Your task to perform on an android device: turn off improve location accuracy Image 0: 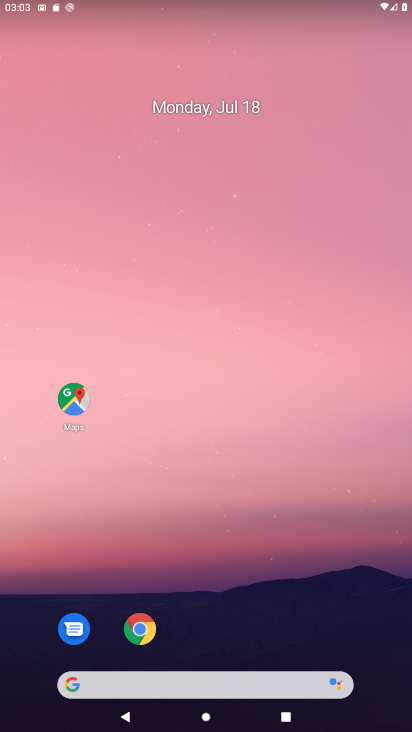
Step 0: drag from (360, 604) to (354, 121)
Your task to perform on an android device: turn off improve location accuracy Image 1: 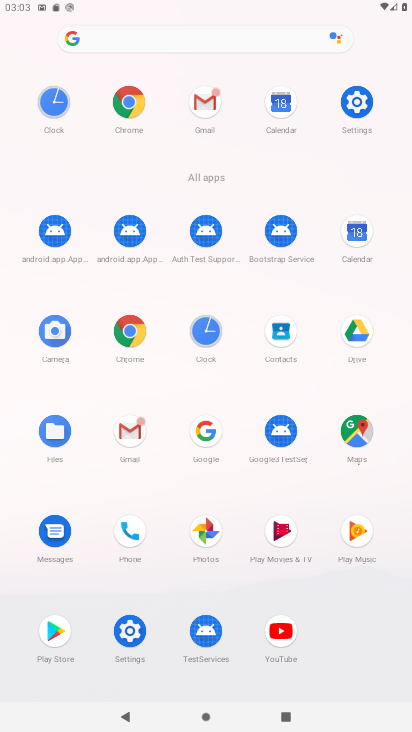
Step 1: click (357, 105)
Your task to perform on an android device: turn off improve location accuracy Image 2: 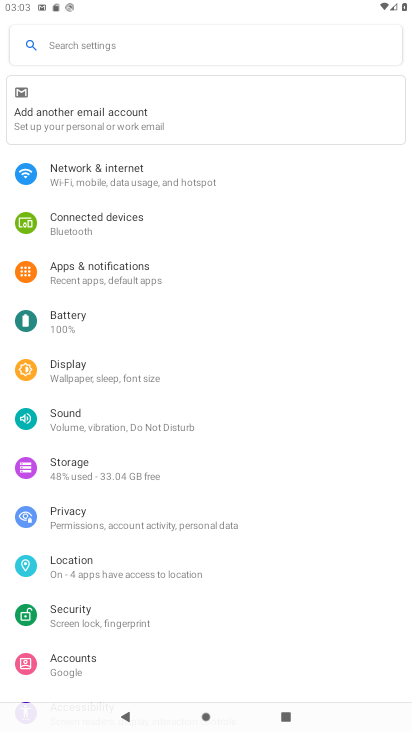
Step 2: click (352, 406)
Your task to perform on an android device: turn off improve location accuracy Image 3: 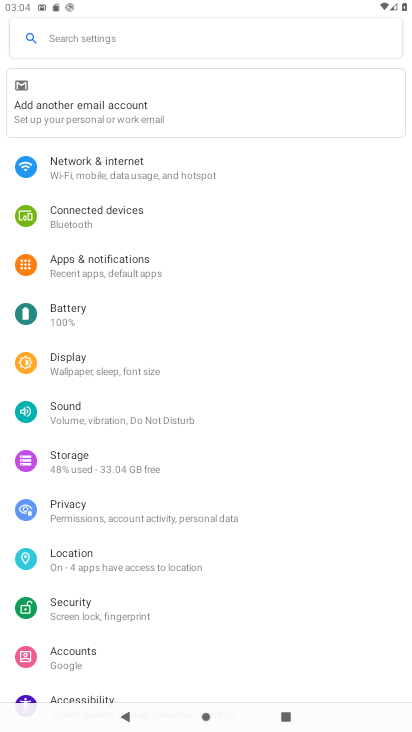
Step 3: drag from (344, 395) to (344, 337)
Your task to perform on an android device: turn off improve location accuracy Image 4: 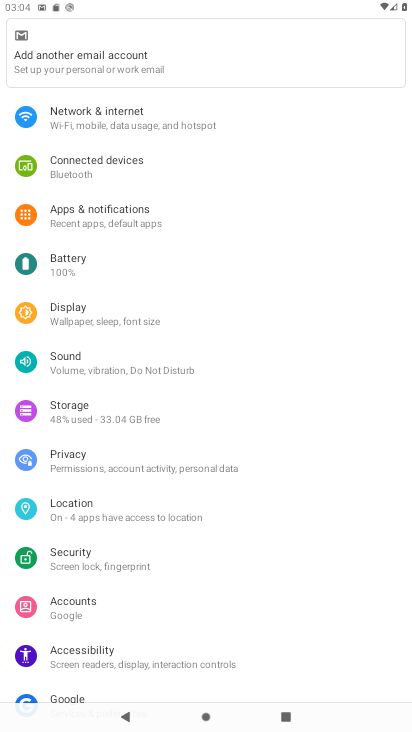
Step 4: drag from (305, 508) to (304, 383)
Your task to perform on an android device: turn off improve location accuracy Image 5: 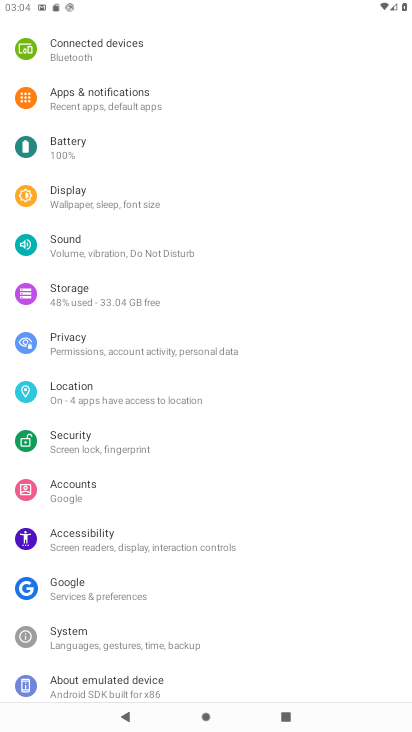
Step 5: drag from (311, 516) to (315, 406)
Your task to perform on an android device: turn off improve location accuracy Image 6: 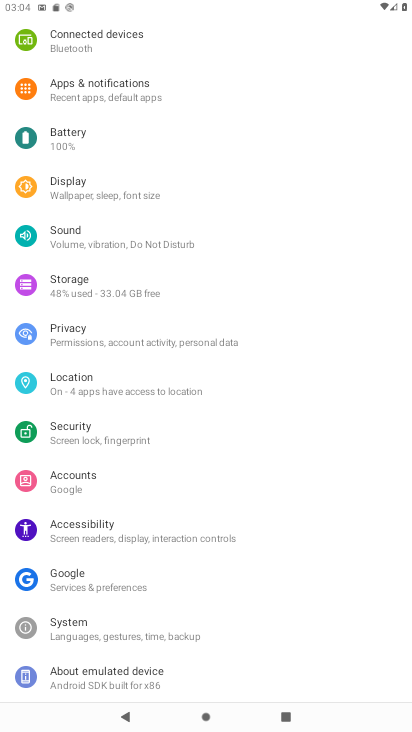
Step 6: drag from (292, 296) to (288, 452)
Your task to perform on an android device: turn off improve location accuracy Image 7: 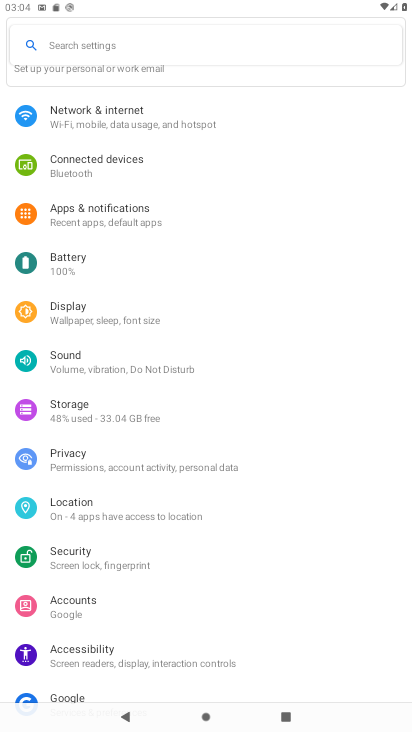
Step 7: click (224, 508)
Your task to perform on an android device: turn off improve location accuracy Image 8: 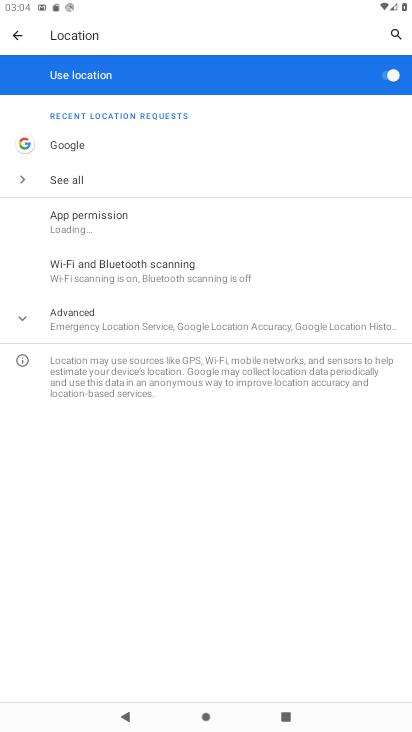
Step 8: click (275, 327)
Your task to perform on an android device: turn off improve location accuracy Image 9: 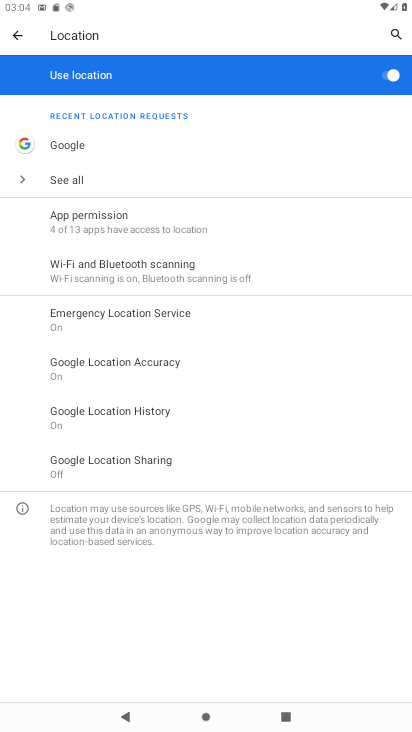
Step 9: click (167, 367)
Your task to perform on an android device: turn off improve location accuracy Image 10: 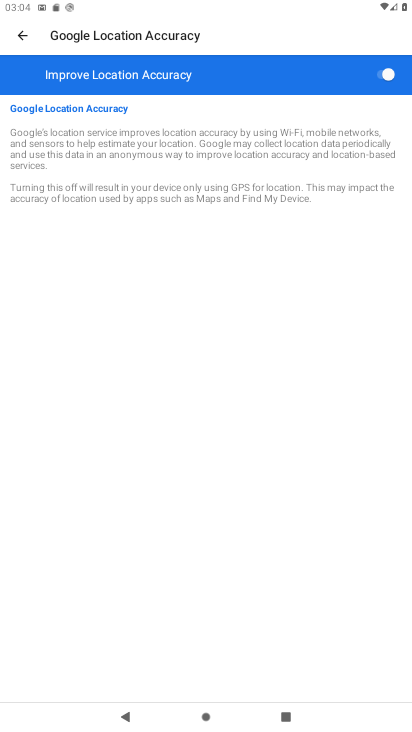
Step 10: click (387, 70)
Your task to perform on an android device: turn off improve location accuracy Image 11: 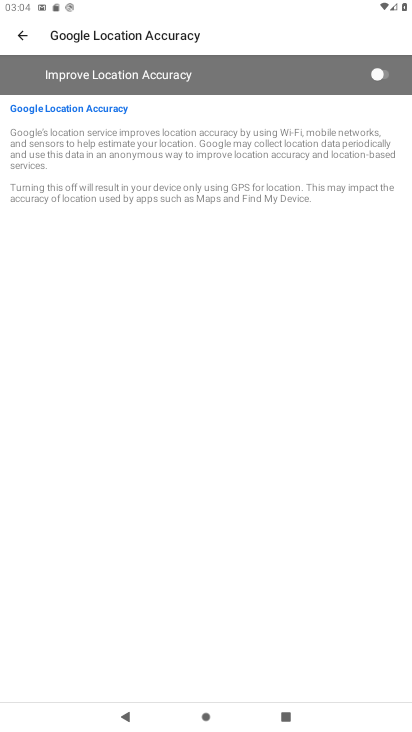
Step 11: task complete